Your task to perform on an android device: Search for a new lawnmower on home depot Image 0: 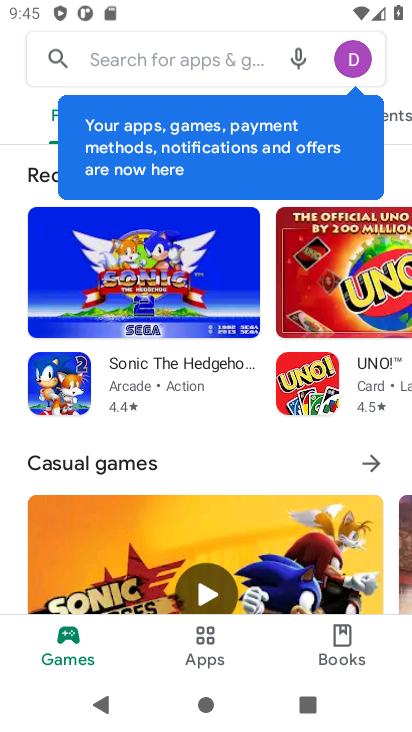
Step 0: press home button
Your task to perform on an android device: Search for a new lawnmower on home depot Image 1: 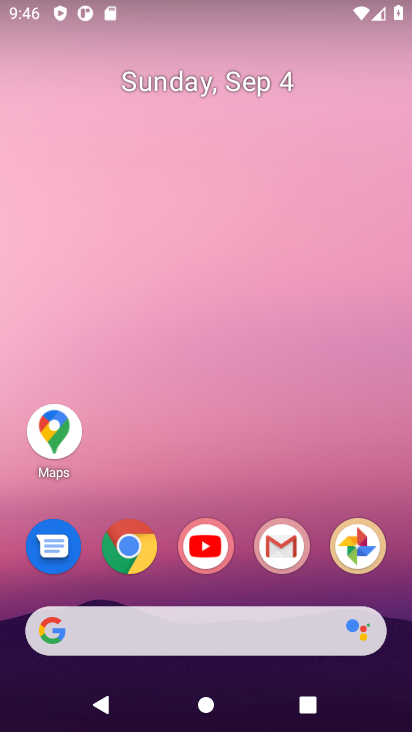
Step 1: click (134, 554)
Your task to perform on an android device: Search for a new lawnmower on home depot Image 2: 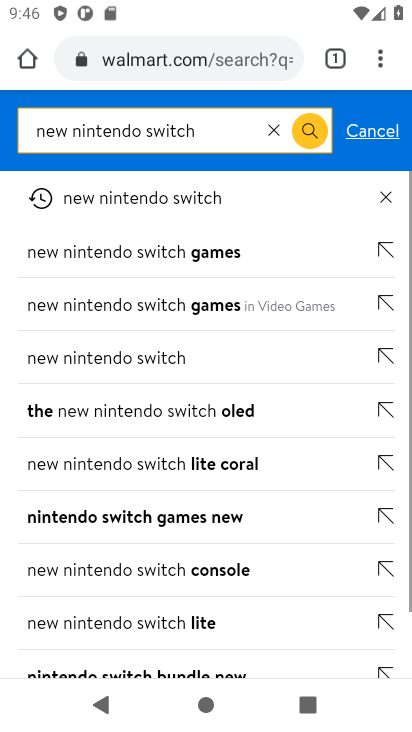
Step 2: click (158, 56)
Your task to perform on an android device: Search for a new lawnmower on home depot Image 3: 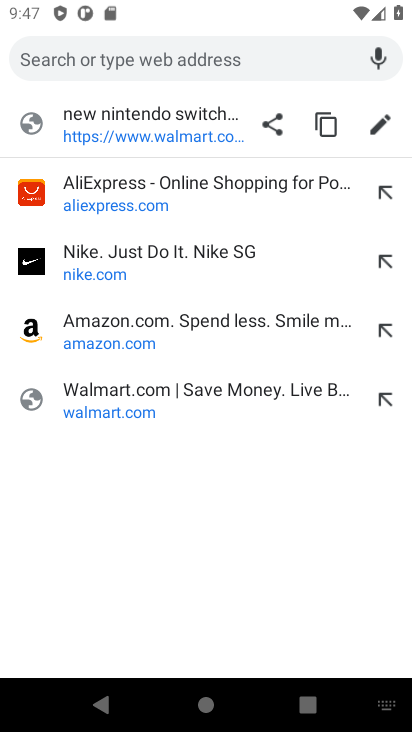
Step 3: click (75, 66)
Your task to perform on an android device: Search for a new lawnmower on home depot Image 4: 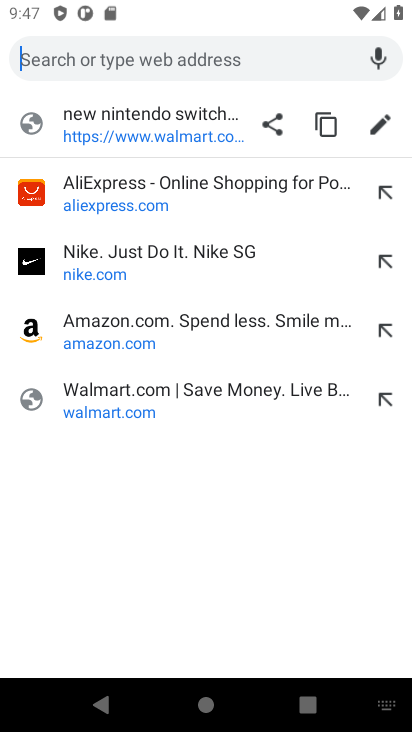
Step 4: type "home depot"
Your task to perform on an android device: Search for a new lawnmower on home depot Image 5: 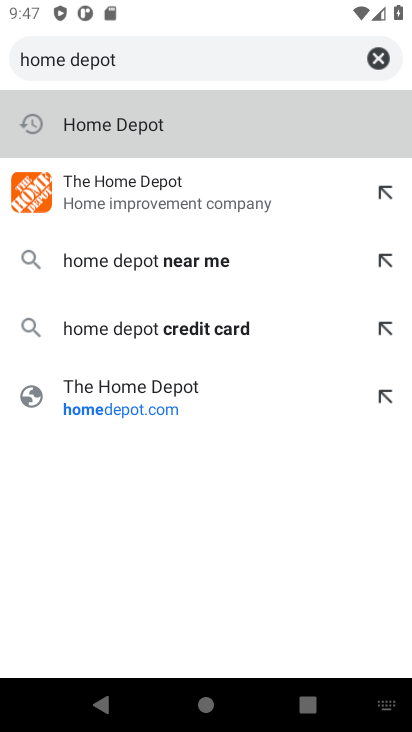
Step 5: click (107, 137)
Your task to perform on an android device: Search for a new lawnmower on home depot Image 6: 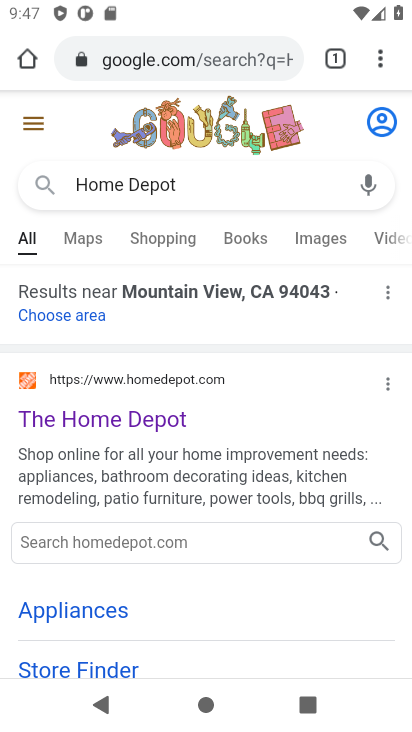
Step 6: click (50, 425)
Your task to perform on an android device: Search for a new lawnmower on home depot Image 7: 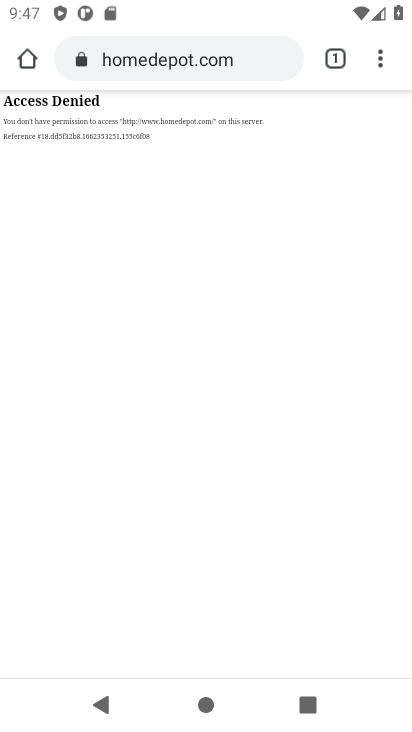
Step 7: task complete